Your task to perform on an android device: turn off notifications settings in the gmail app Image 0: 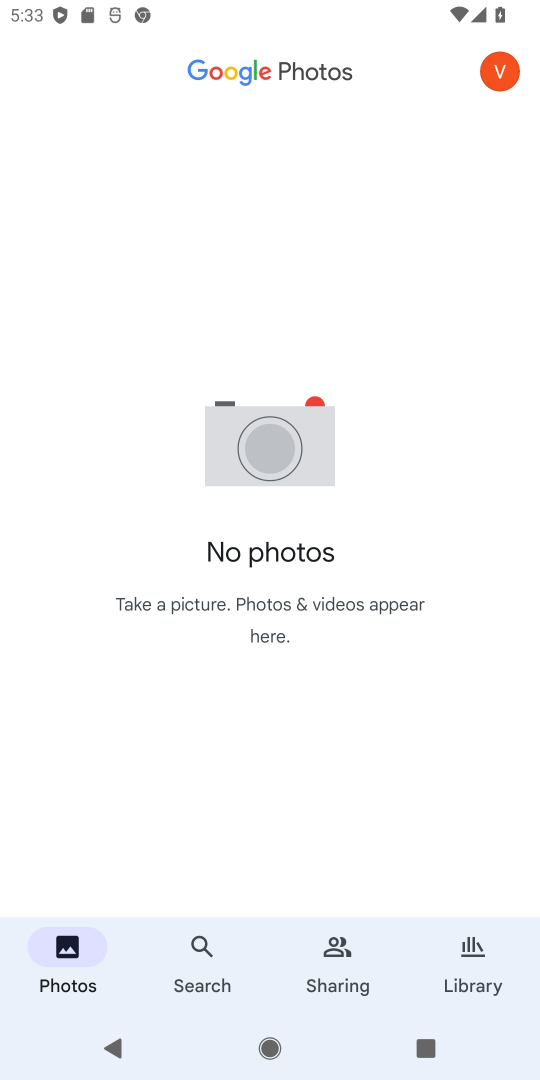
Step 0: press home button
Your task to perform on an android device: turn off notifications settings in the gmail app Image 1: 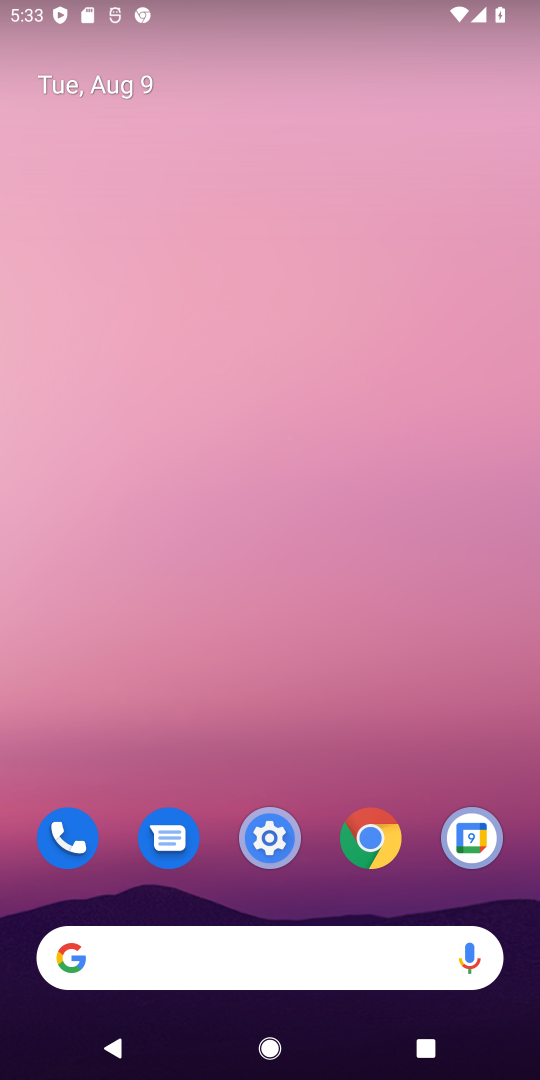
Step 1: drag from (393, 775) to (314, 22)
Your task to perform on an android device: turn off notifications settings in the gmail app Image 2: 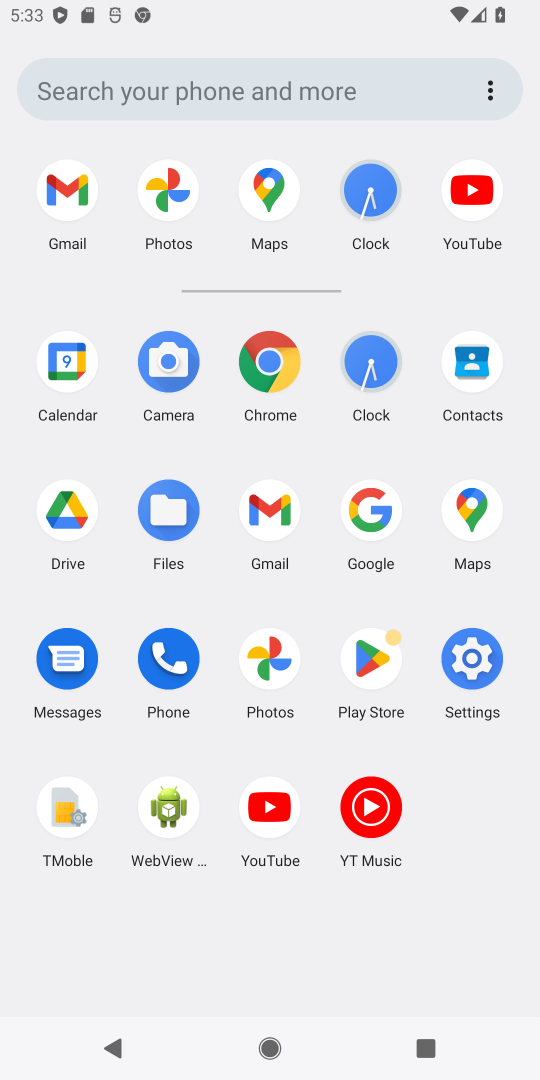
Step 2: click (277, 518)
Your task to perform on an android device: turn off notifications settings in the gmail app Image 3: 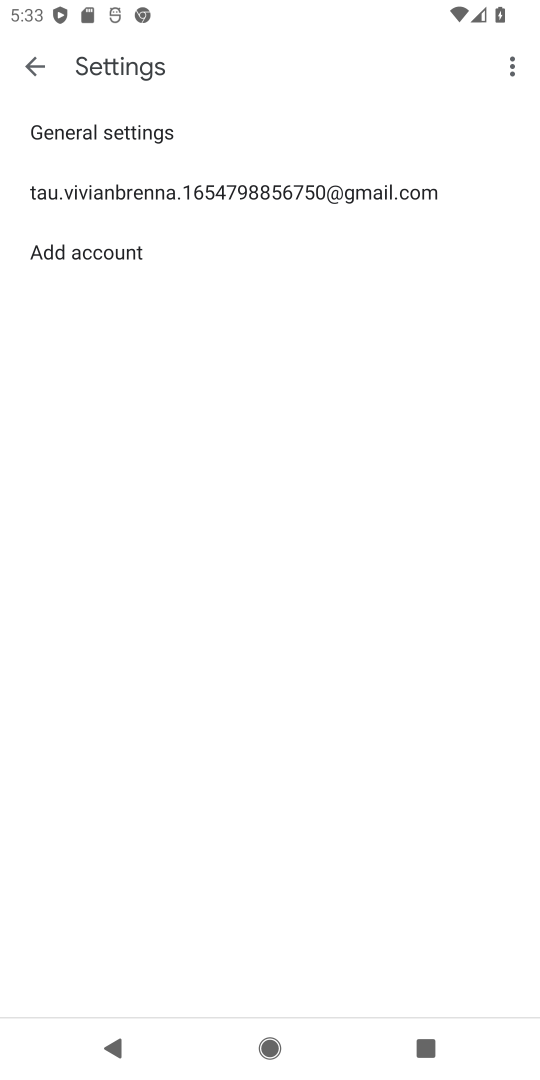
Step 3: click (247, 196)
Your task to perform on an android device: turn off notifications settings in the gmail app Image 4: 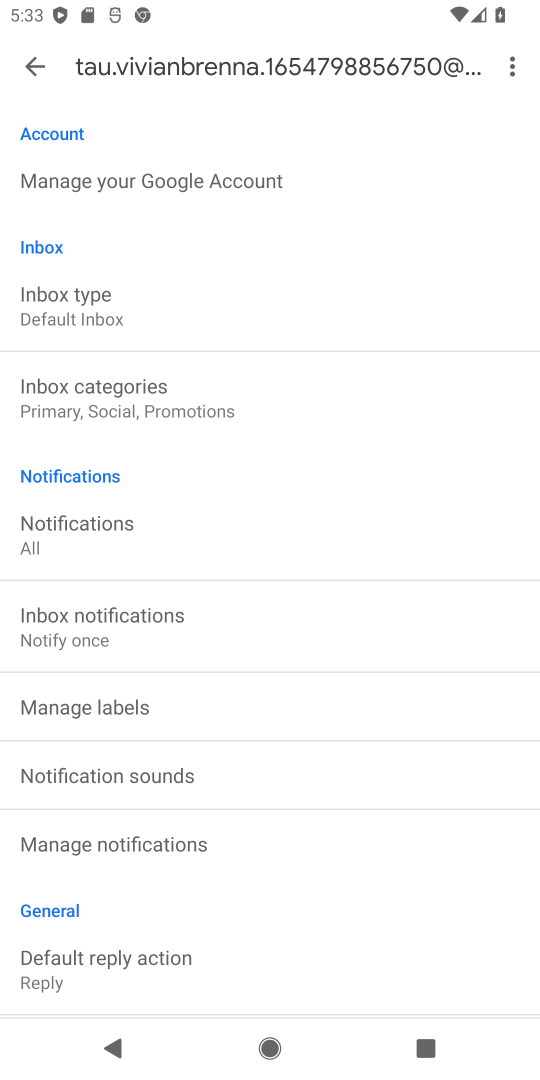
Step 4: click (206, 860)
Your task to perform on an android device: turn off notifications settings in the gmail app Image 5: 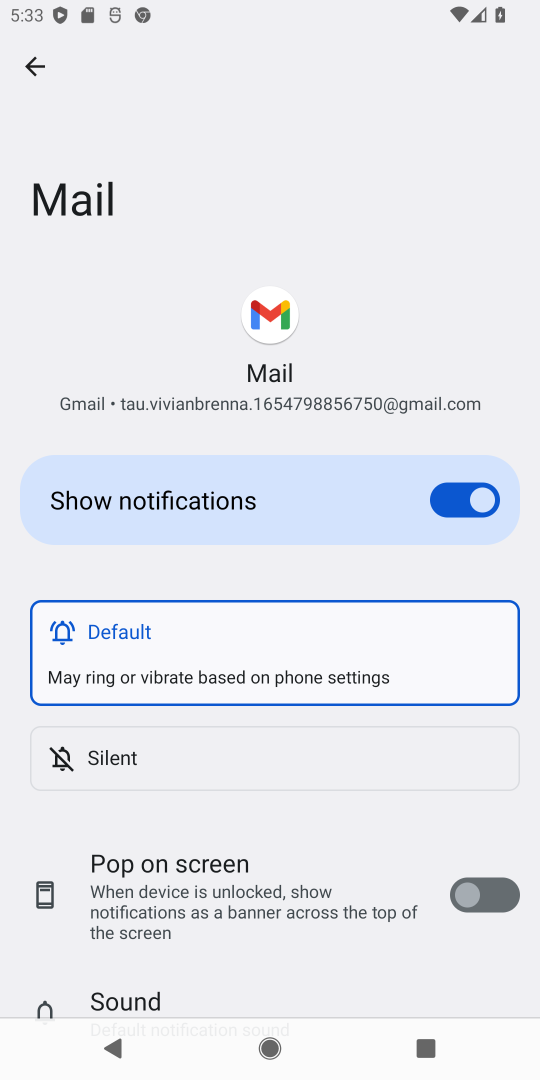
Step 5: drag from (312, 963) to (276, 444)
Your task to perform on an android device: turn off notifications settings in the gmail app Image 6: 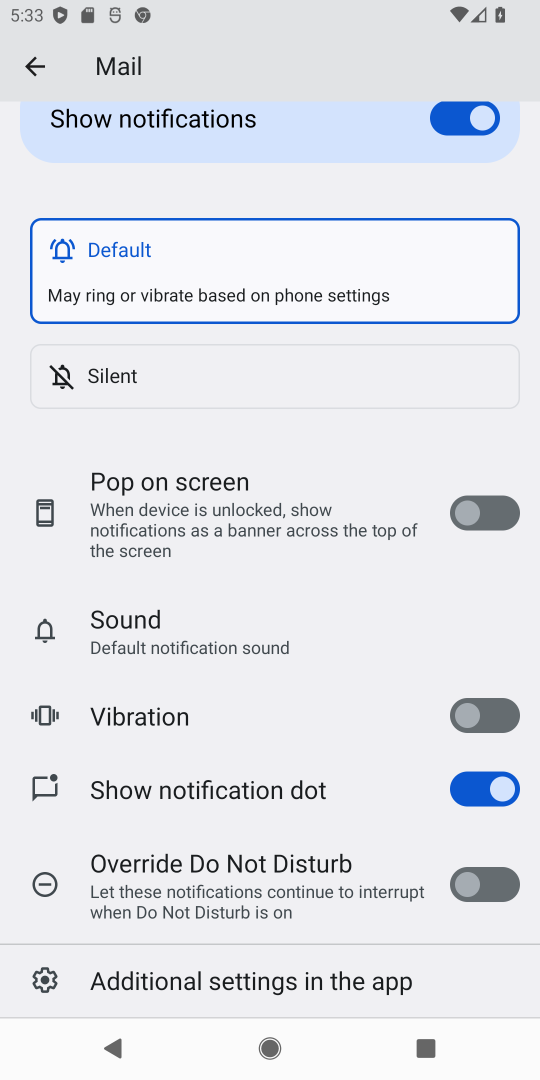
Step 6: click (463, 790)
Your task to perform on an android device: turn off notifications settings in the gmail app Image 7: 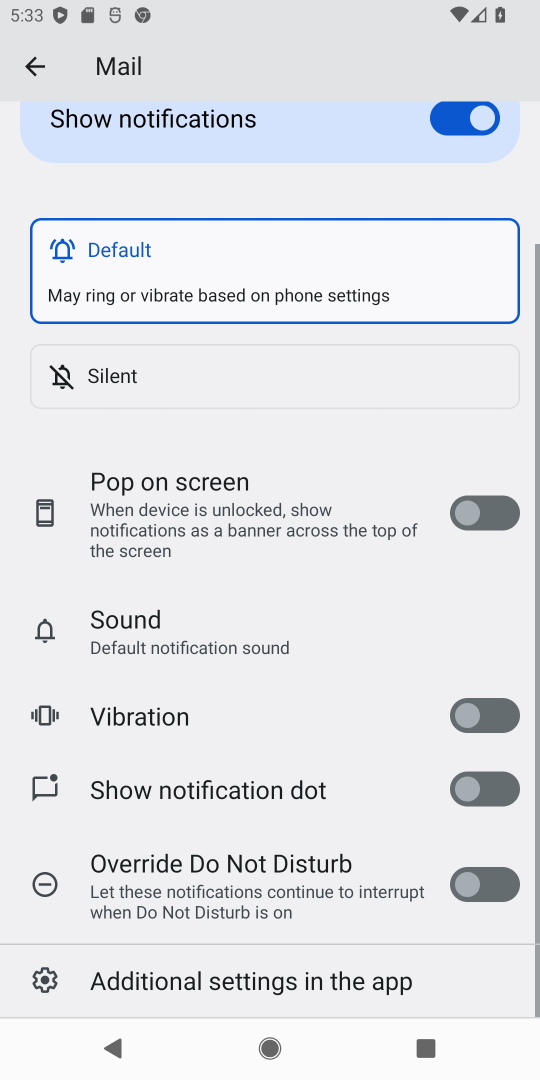
Step 7: task complete